Your task to perform on an android device: Open Chrome and go to the settings page Image 0: 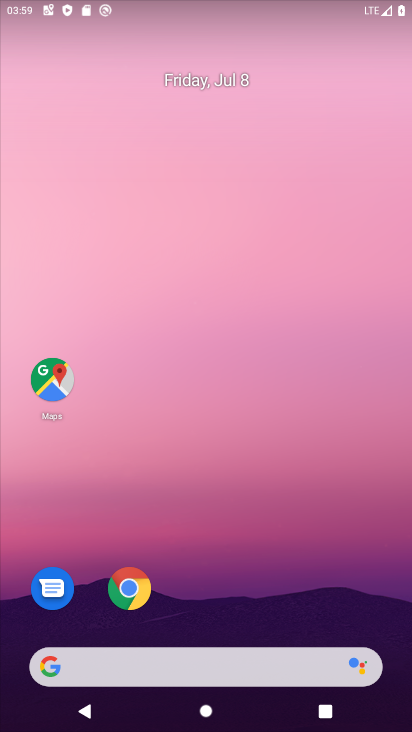
Step 0: drag from (210, 380) to (270, 37)
Your task to perform on an android device: Open Chrome and go to the settings page Image 1: 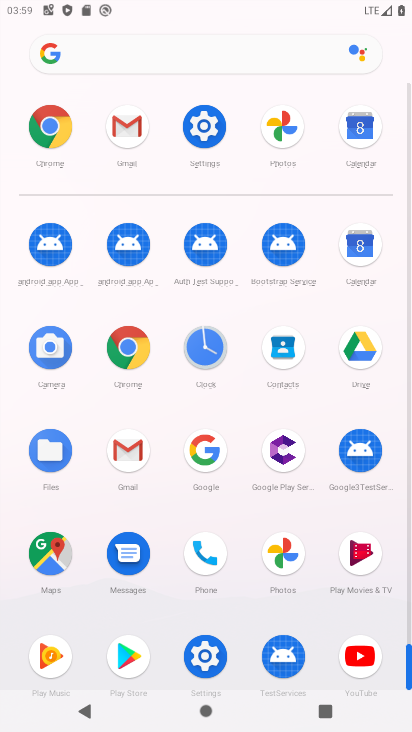
Step 1: click (50, 125)
Your task to perform on an android device: Open Chrome and go to the settings page Image 2: 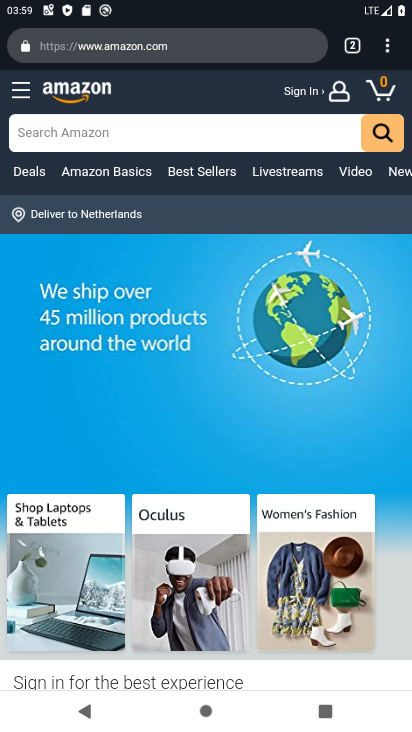
Step 2: click (391, 44)
Your task to perform on an android device: Open Chrome and go to the settings page Image 3: 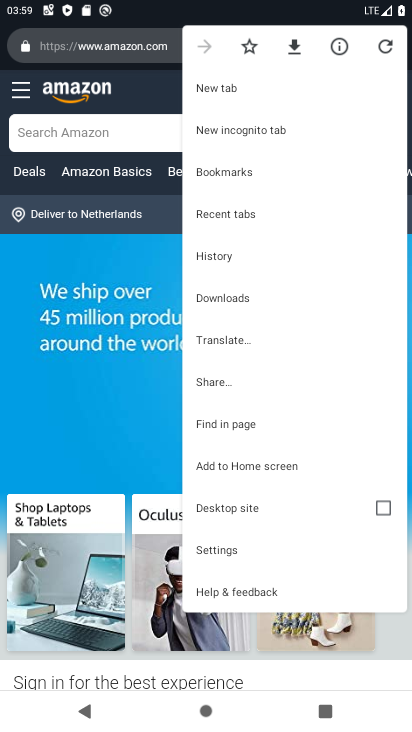
Step 3: click (229, 555)
Your task to perform on an android device: Open Chrome and go to the settings page Image 4: 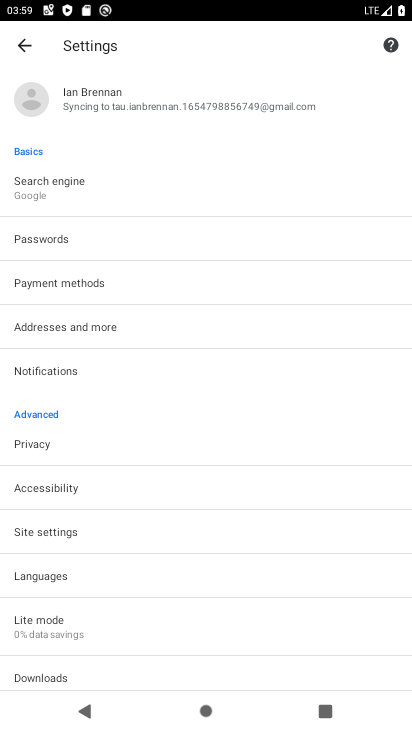
Step 4: task complete